Your task to perform on an android device: turn notification dots on Image 0: 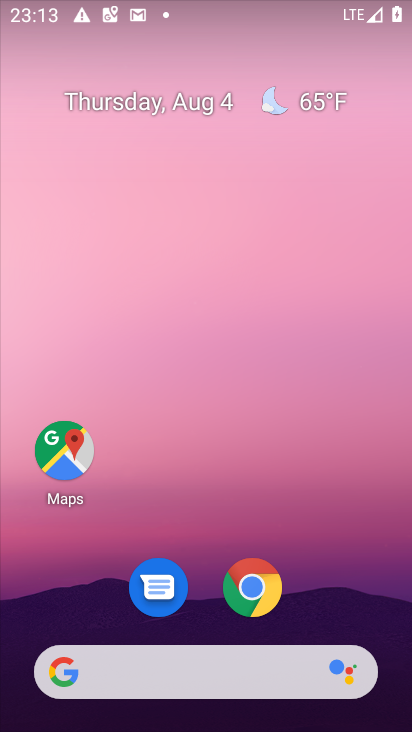
Step 0: drag from (255, 652) to (251, 265)
Your task to perform on an android device: turn notification dots on Image 1: 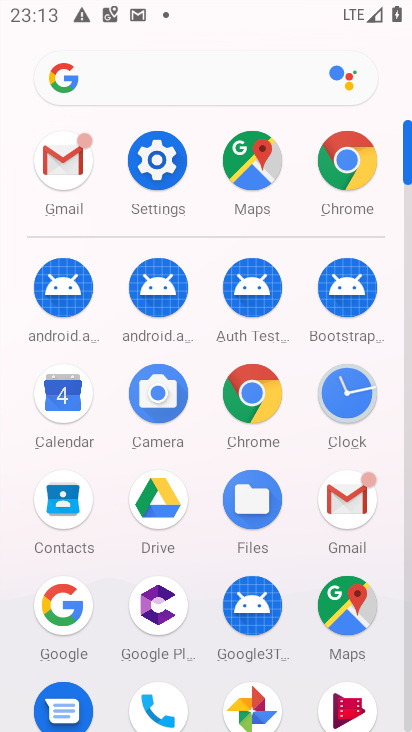
Step 1: click (171, 154)
Your task to perform on an android device: turn notification dots on Image 2: 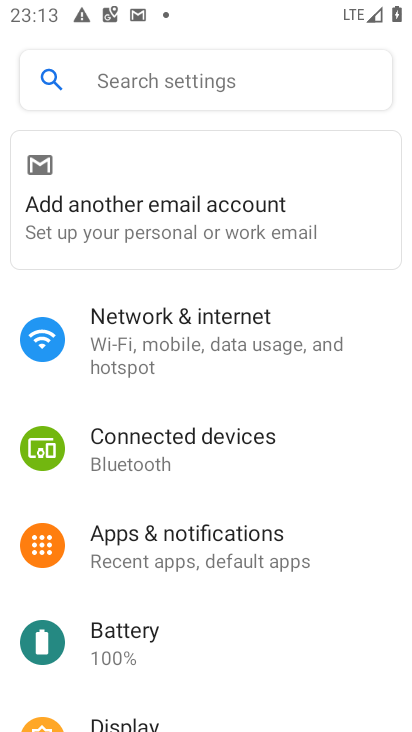
Step 2: click (217, 316)
Your task to perform on an android device: turn notification dots on Image 3: 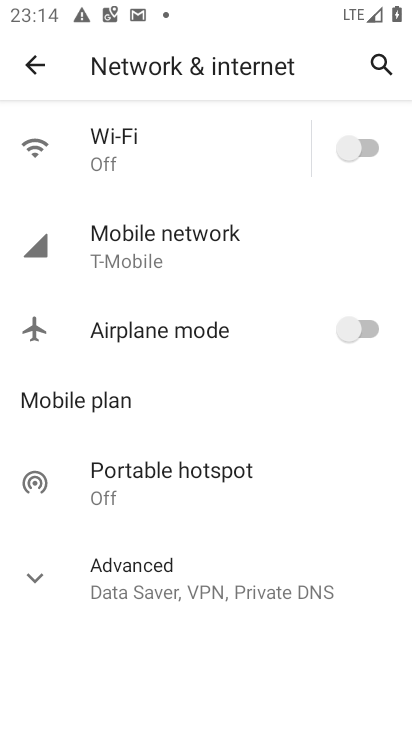
Step 3: click (26, 53)
Your task to perform on an android device: turn notification dots on Image 4: 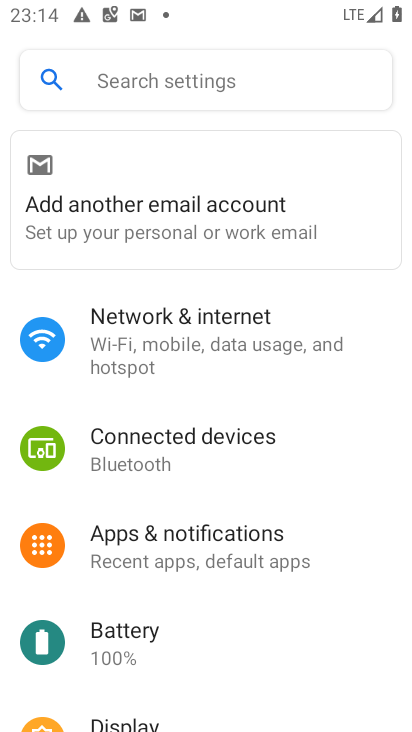
Step 4: click (202, 77)
Your task to perform on an android device: turn notification dots on Image 5: 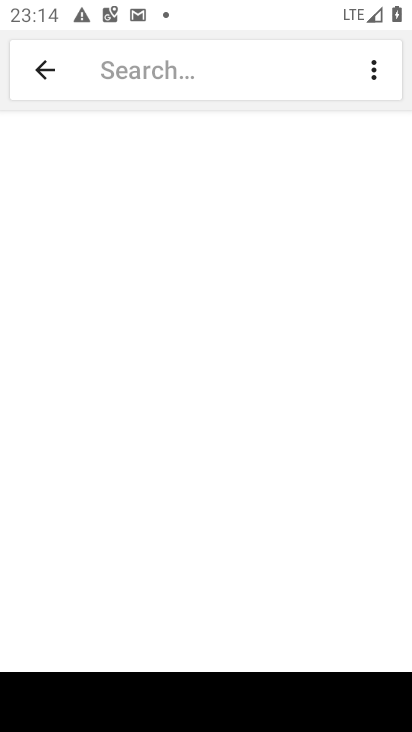
Step 5: click (198, 57)
Your task to perform on an android device: turn notification dots on Image 6: 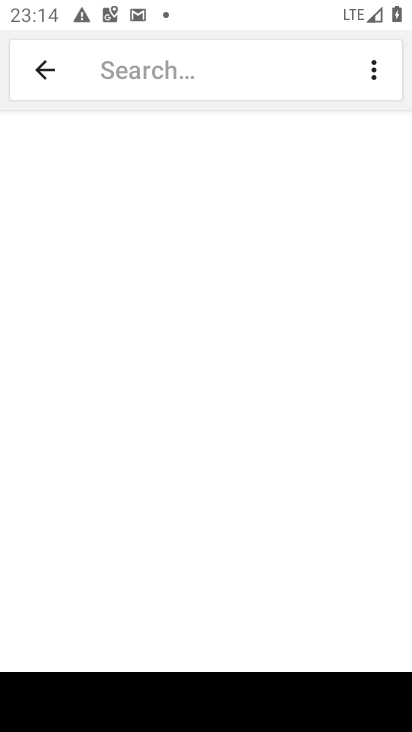
Step 6: type "notification dots  "
Your task to perform on an android device: turn notification dots on Image 7: 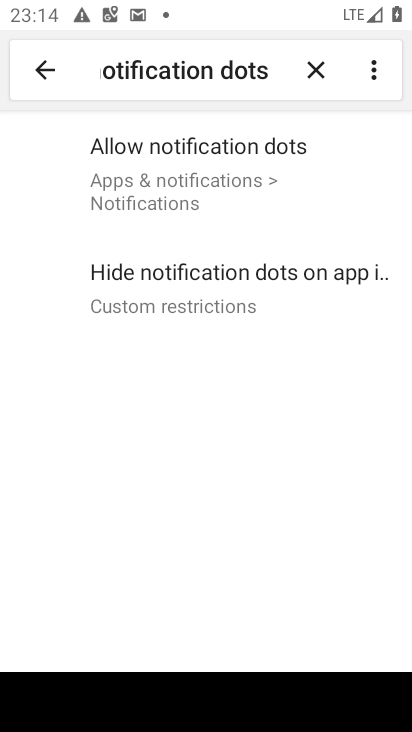
Step 7: click (159, 181)
Your task to perform on an android device: turn notification dots on Image 8: 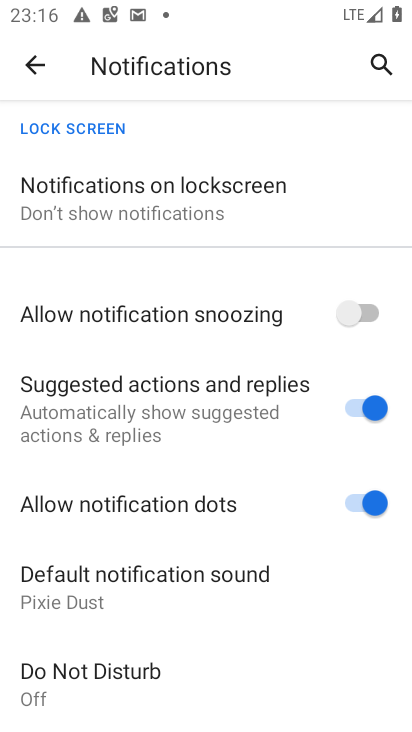
Step 8: task complete